Your task to perform on an android device: Search for Italian restaurants on Maps Image 0: 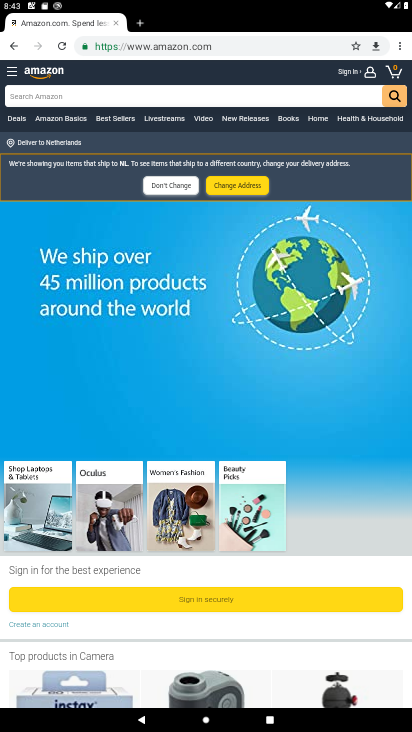
Step 0: press home button
Your task to perform on an android device: Search for Italian restaurants on Maps Image 1: 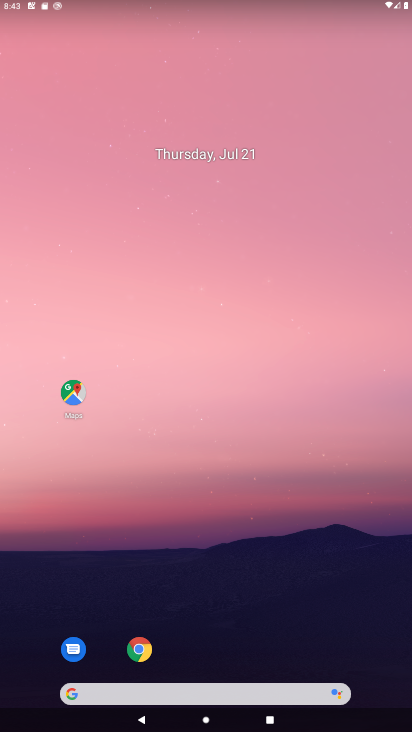
Step 1: click (74, 393)
Your task to perform on an android device: Search for Italian restaurants on Maps Image 2: 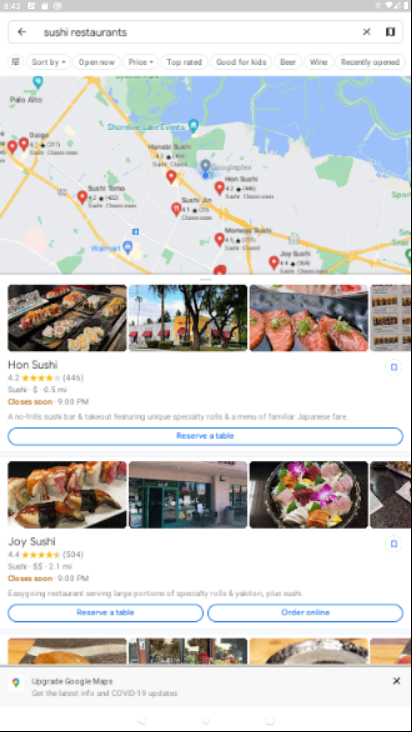
Step 2: click (368, 33)
Your task to perform on an android device: Search for Italian restaurants on Maps Image 3: 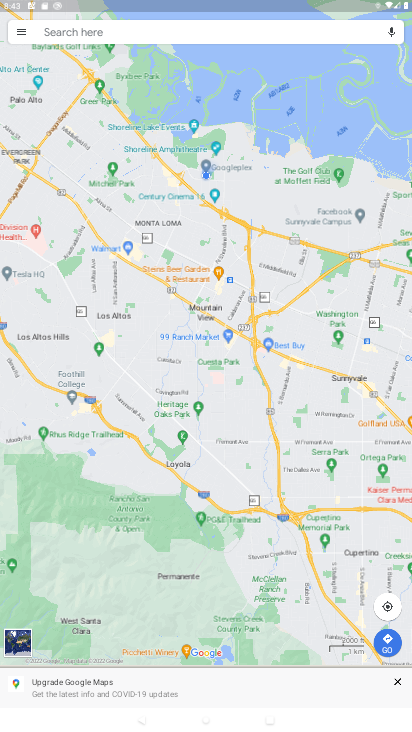
Step 3: click (179, 33)
Your task to perform on an android device: Search for Italian restaurants on Maps Image 4: 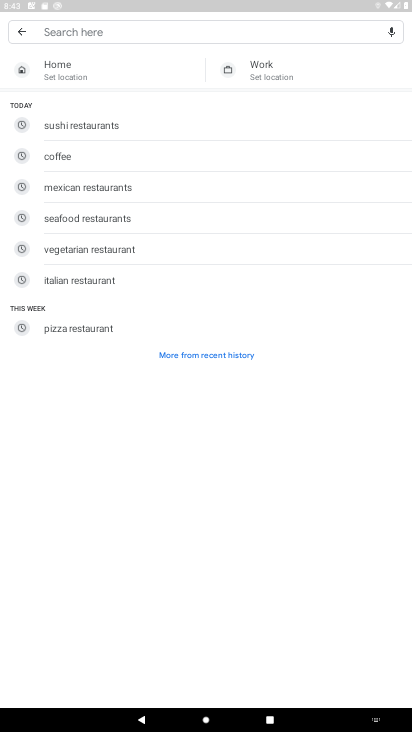
Step 4: click (62, 276)
Your task to perform on an android device: Search for Italian restaurants on Maps Image 5: 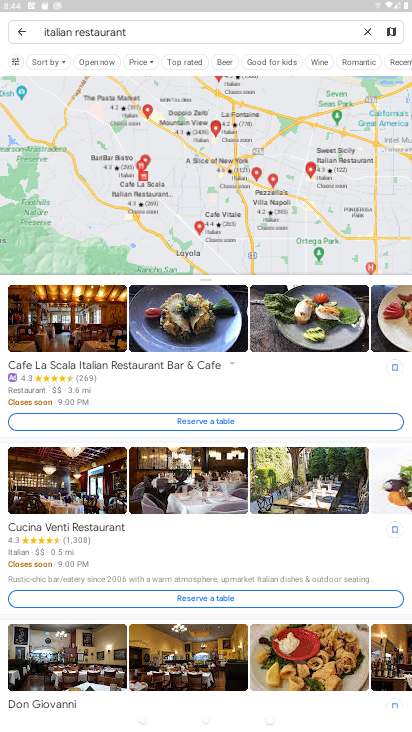
Step 5: task complete